Your task to perform on an android device: Open accessibility settings Image 0: 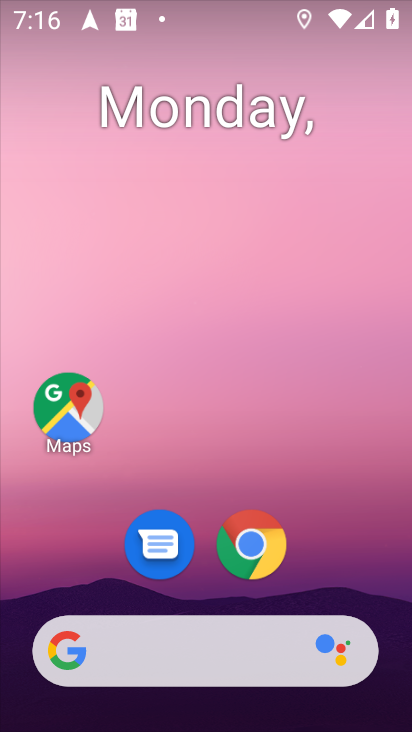
Step 0: drag from (334, 551) to (281, 150)
Your task to perform on an android device: Open accessibility settings Image 1: 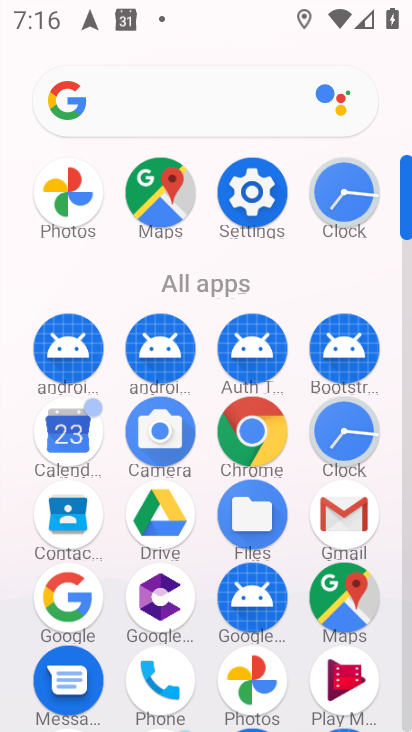
Step 1: click (249, 195)
Your task to perform on an android device: Open accessibility settings Image 2: 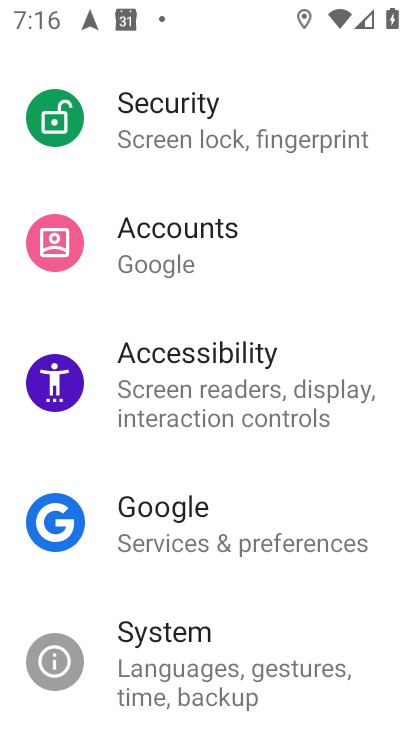
Step 2: click (185, 350)
Your task to perform on an android device: Open accessibility settings Image 3: 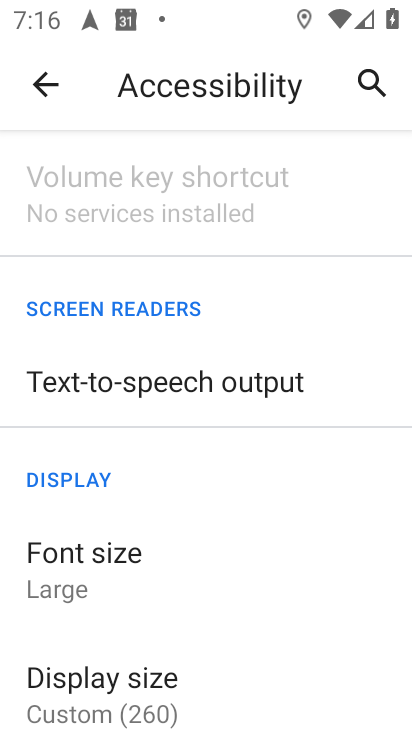
Step 3: task complete